Your task to perform on an android device: Go to notification settings Image 0: 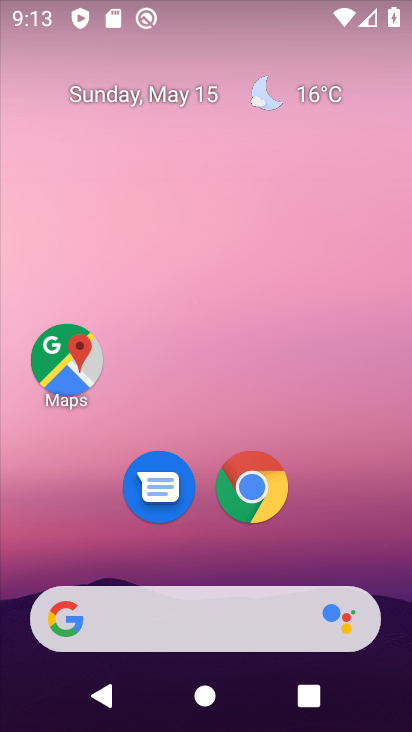
Step 0: drag from (353, 515) to (369, 156)
Your task to perform on an android device: Go to notification settings Image 1: 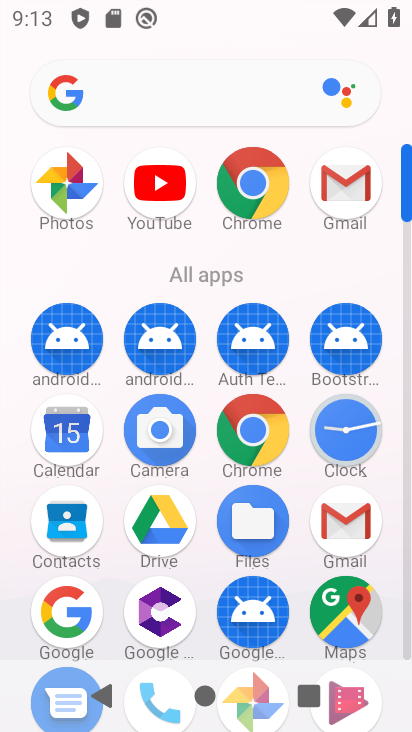
Step 1: drag from (296, 621) to (335, 288)
Your task to perform on an android device: Go to notification settings Image 2: 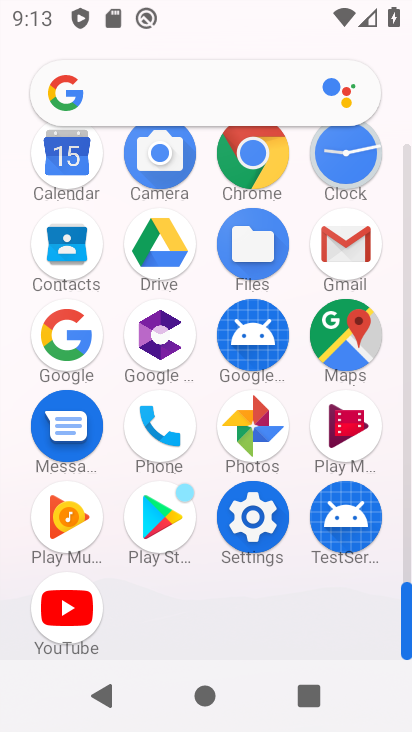
Step 2: click (261, 536)
Your task to perform on an android device: Go to notification settings Image 3: 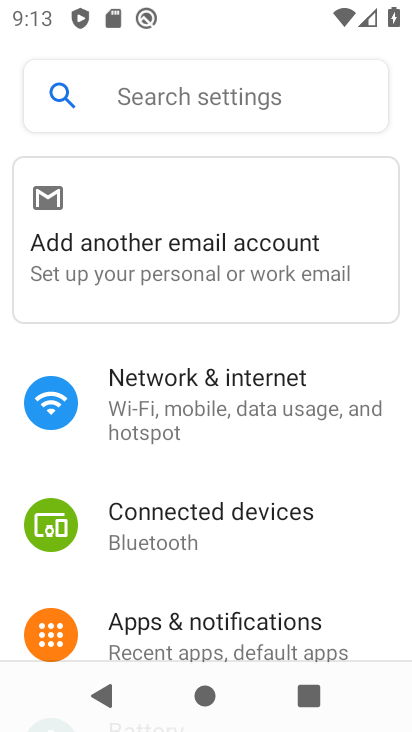
Step 3: drag from (350, 608) to (350, 297)
Your task to perform on an android device: Go to notification settings Image 4: 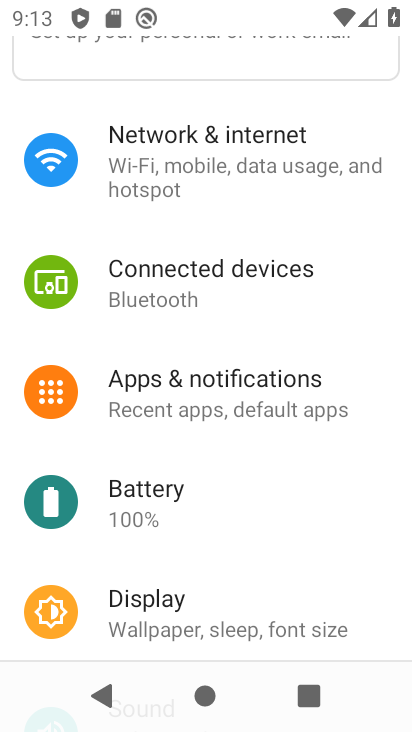
Step 4: click (266, 384)
Your task to perform on an android device: Go to notification settings Image 5: 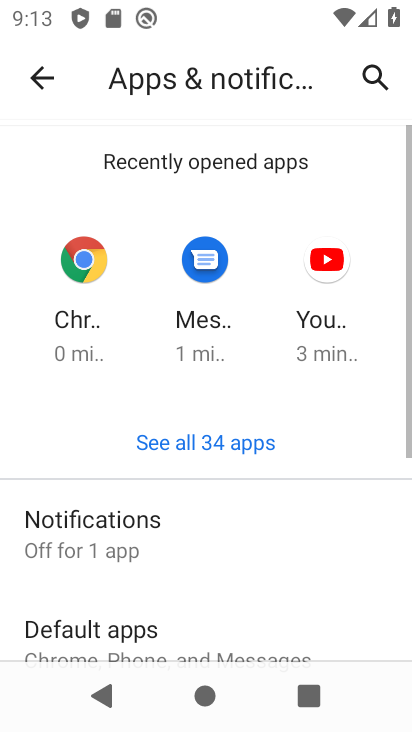
Step 5: drag from (271, 618) to (300, 212)
Your task to perform on an android device: Go to notification settings Image 6: 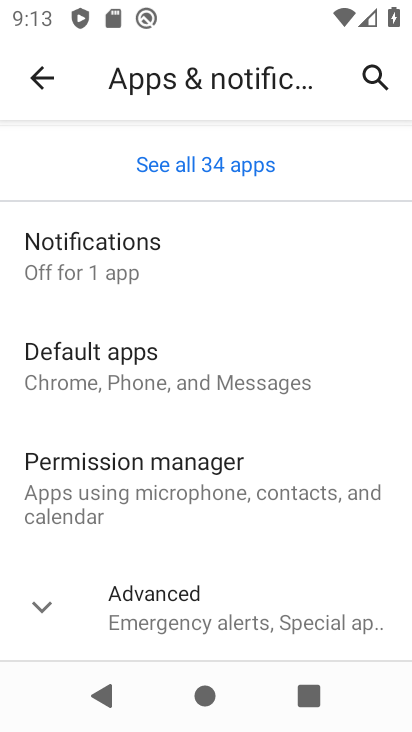
Step 6: click (107, 254)
Your task to perform on an android device: Go to notification settings Image 7: 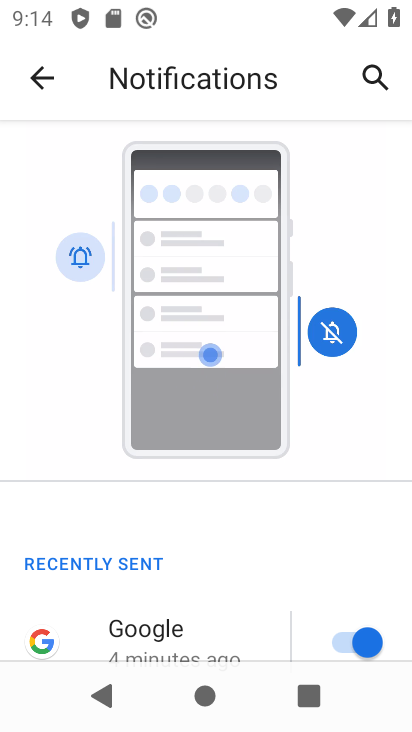
Step 7: task complete